Your task to perform on an android device: Open the calendar and show me this week's events? Image 0: 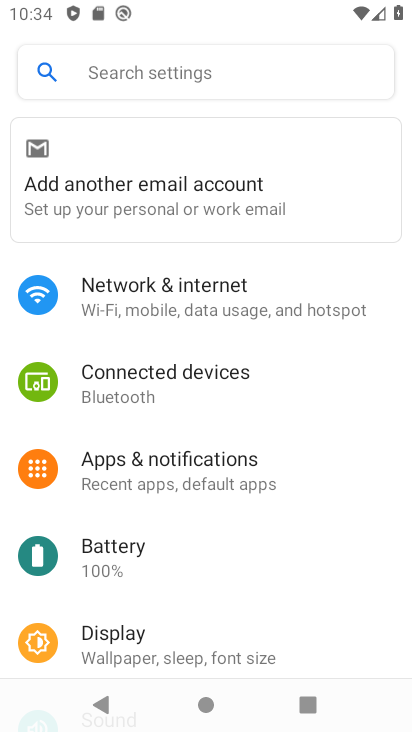
Step 0: press home button
Your task to perform on an android device: Open the calendar and show me this week's events? Image 1: 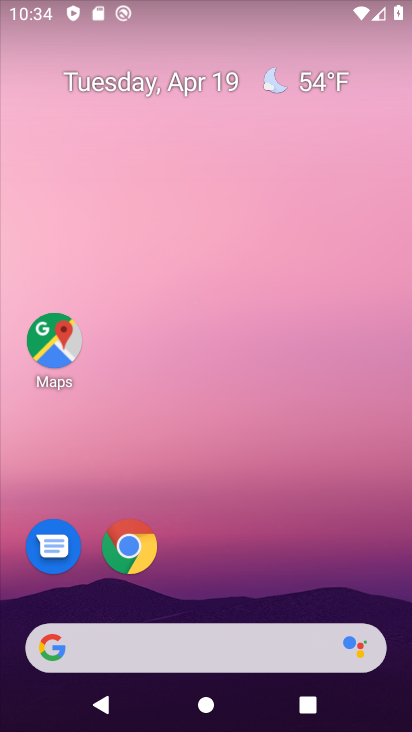
Step 1: drag from (266, 698) to (254, 18)
Your task to perform on an android device: Open the calendar and show me this week's events? Image 2: 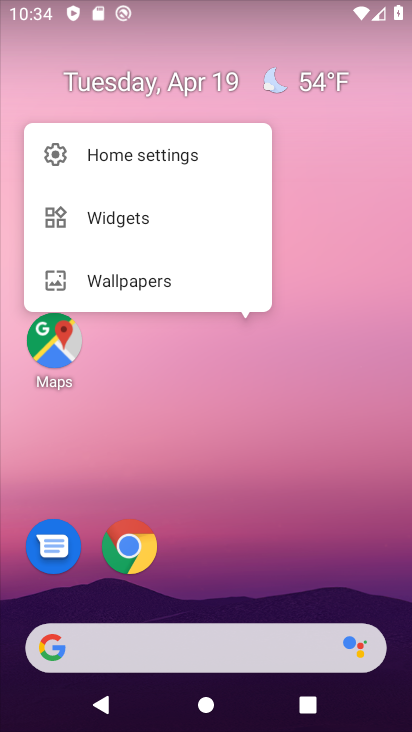
Step 2: drag from (229, 697) to (302, 8)
Your task to perform on an android device: Open the calendar and show me this week's events? Image 3: 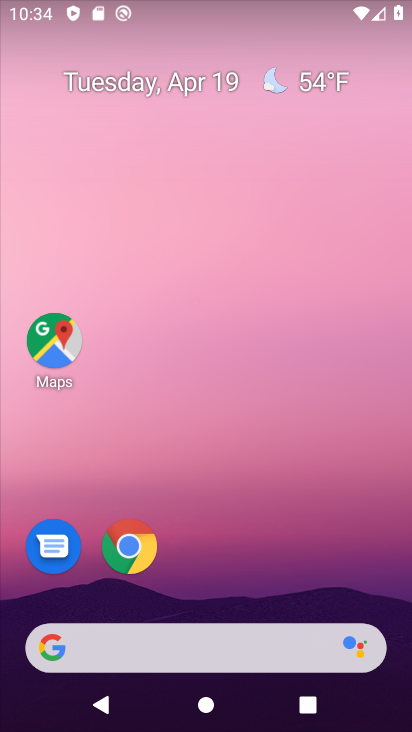
Step 3: drag from (240, 568) to (312, 47)
Your task to perform on an android device: Open the calendar and show me this week's events? Image 4: 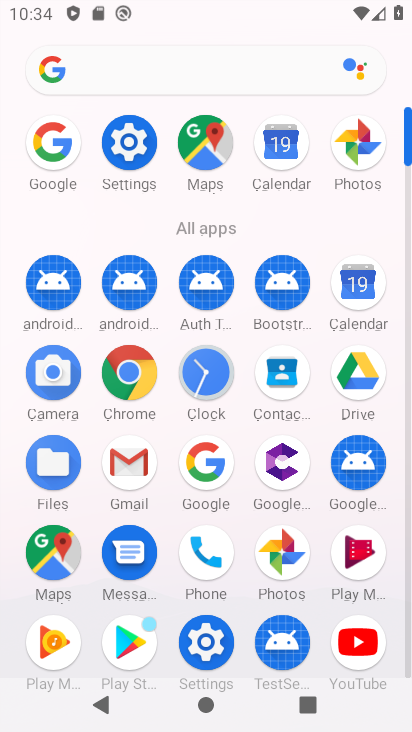
Step 4: click (358, 291)
Your task to perform on an android device: Open the calendar and show me this week's events? Image 5: 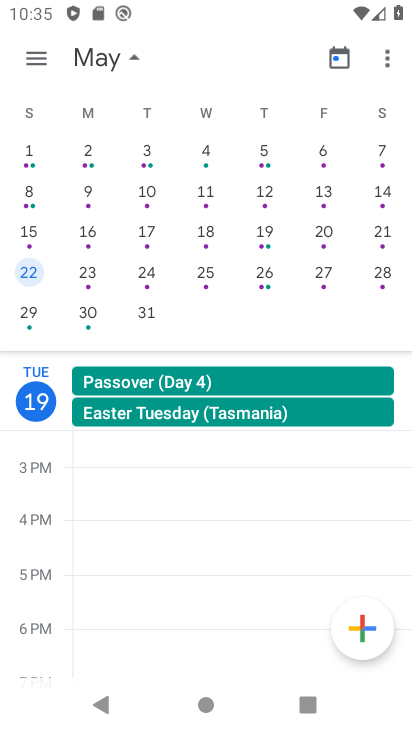
Step 5: click (96, 55)
Your task to perform on an android device: Open the calendar and show me this week's events? Image 6: 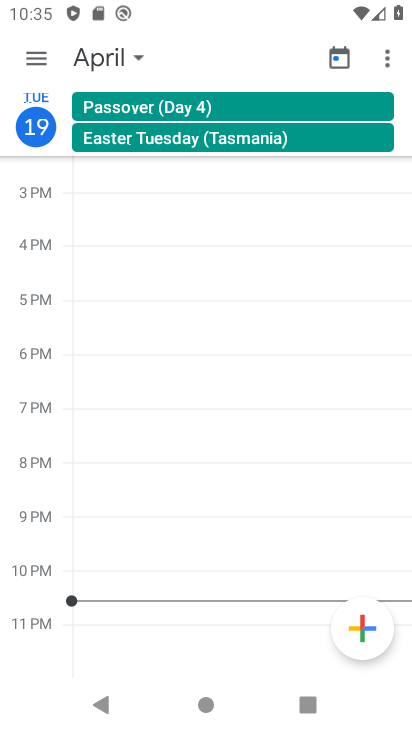
Step 6: task complete